Your task to perform on an android device: see sites visited before in the chrome app Image 0: 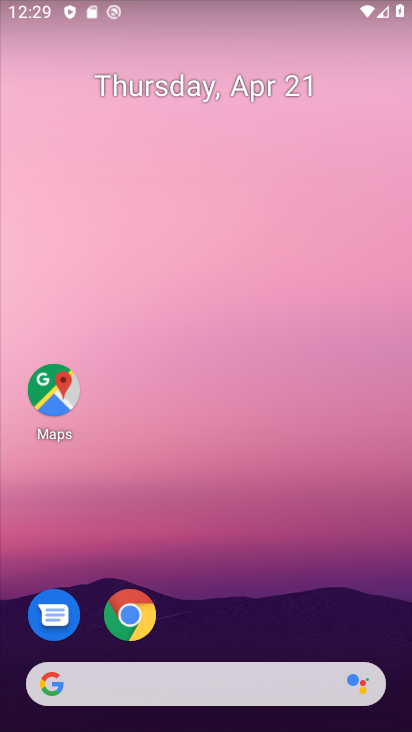
Step 0: click (135, 603)
Your task to perform on an android device: see sites visited before in the chrome app Image 1: 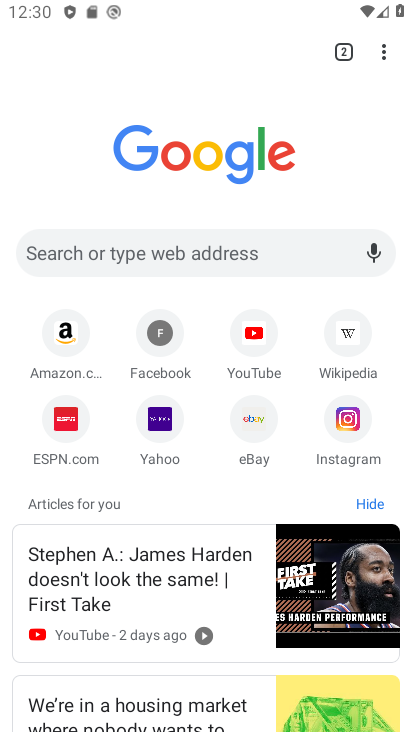
Step 1: task complete